Your task to perform on an android device: Search for a new lawnmower on Lowes. Image 0: 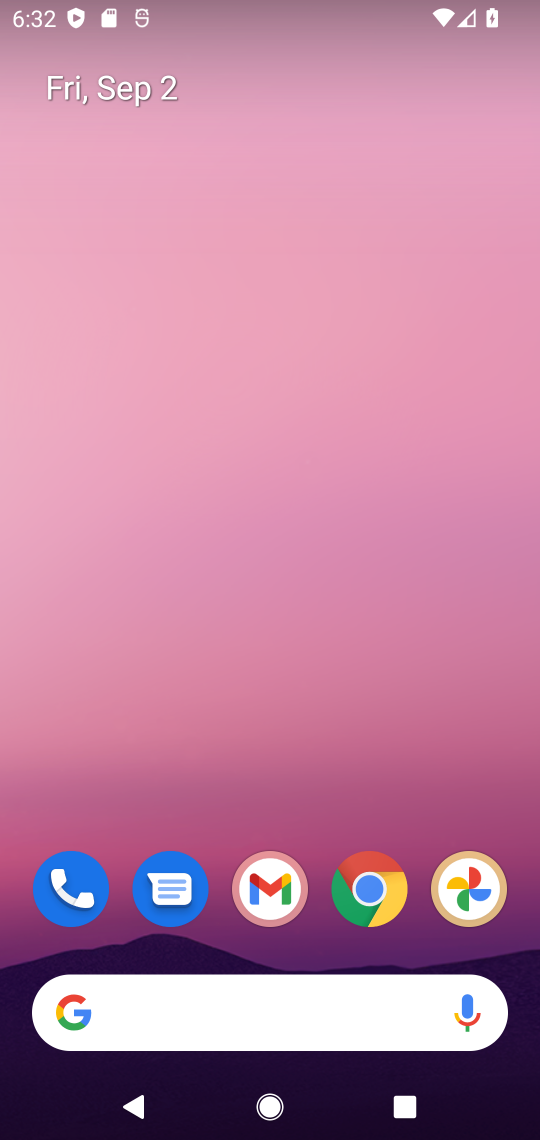
Step 0: click (232, 1023)
Your task to perform on an android device: Search for a new lawnmower on Lowes. Image 1: 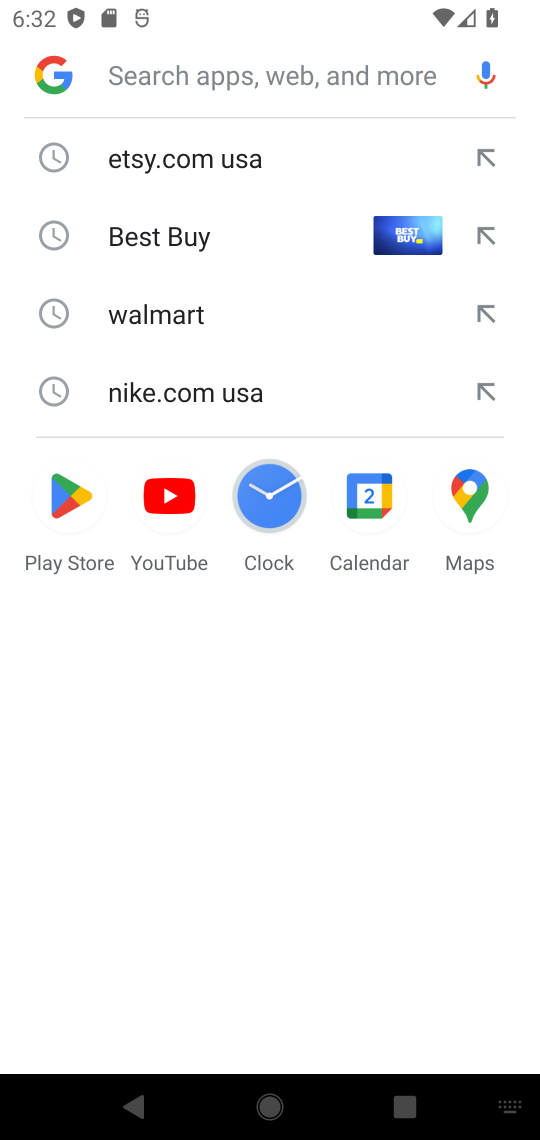
Step 1: click (214, 1076)
Your task to perform on an android device: Search for a new lawnmower on Lowes. Image 2: 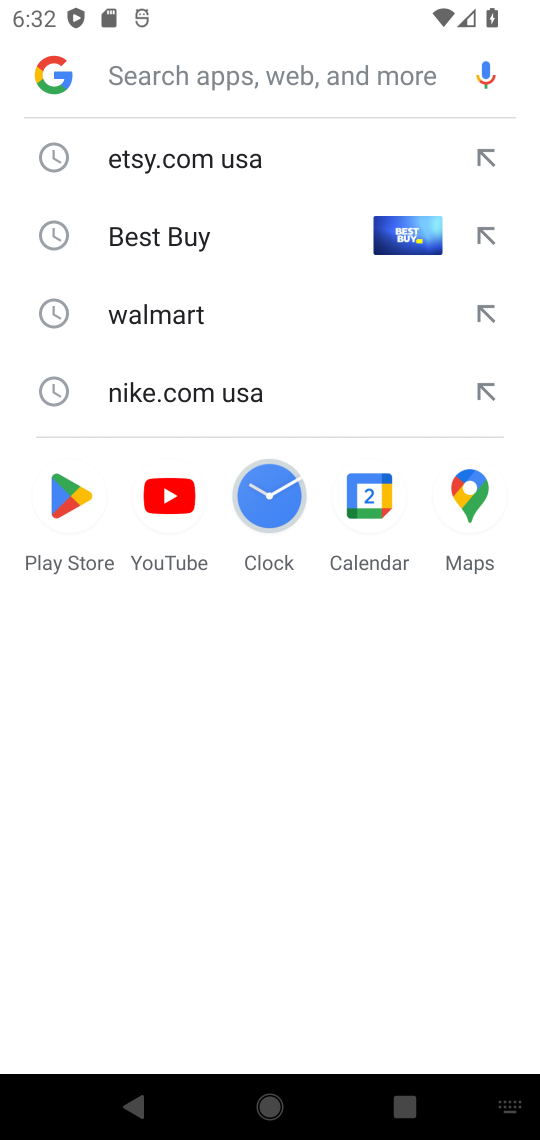
Step 2: type "Lowes"
Your task to perform on an android device: Search for a new lawnmower on Lowes. Image 3: 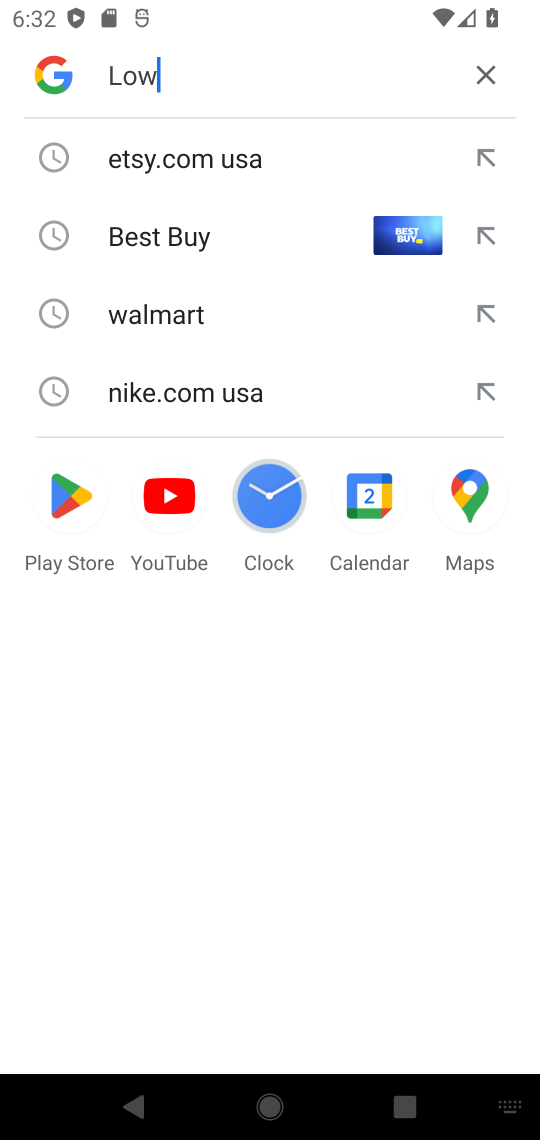
Step 3: type ""
Your task to perform on an android device: Search for a new lawnmower on Lowes. Image 4: 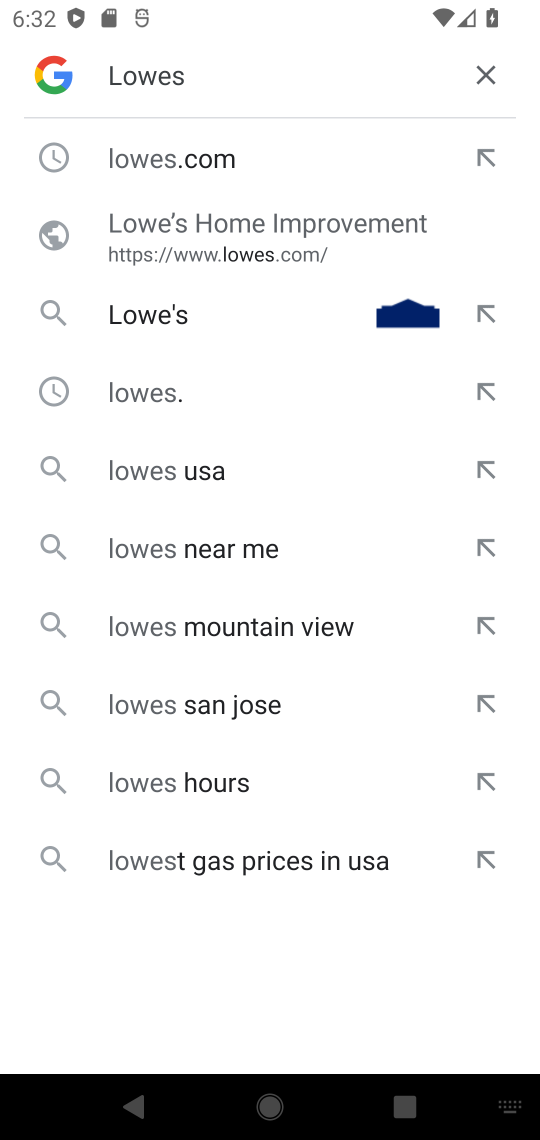
Step 4: click (233, 172)
Your task to perform on an android device: Search for a new lawnmower on Lowes. Image 5: 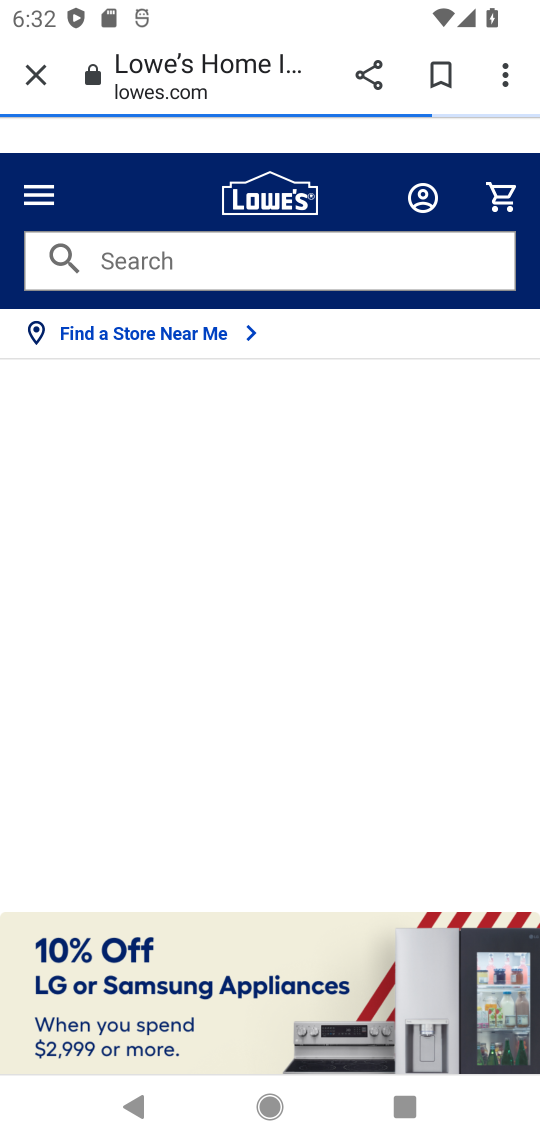
Step 5: click (231, 260)
Your task to perform on an android device: Search for a new lawnmower on Lowes. Image 6: 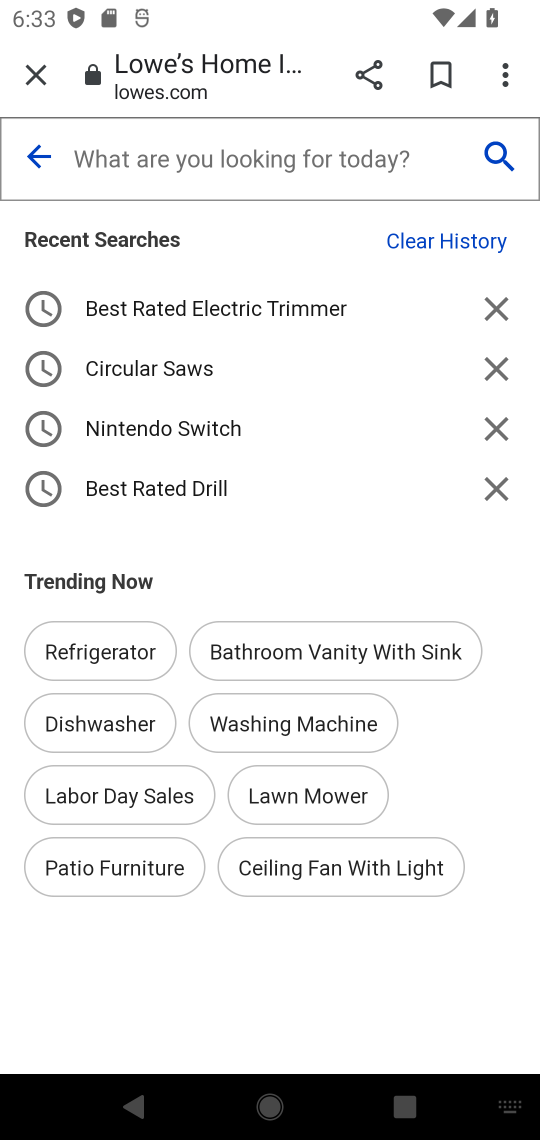
Step 6: type "new lawnmower"
Your task to perform on an android device: Search for a new lawnmower on Lowes. Image 7: 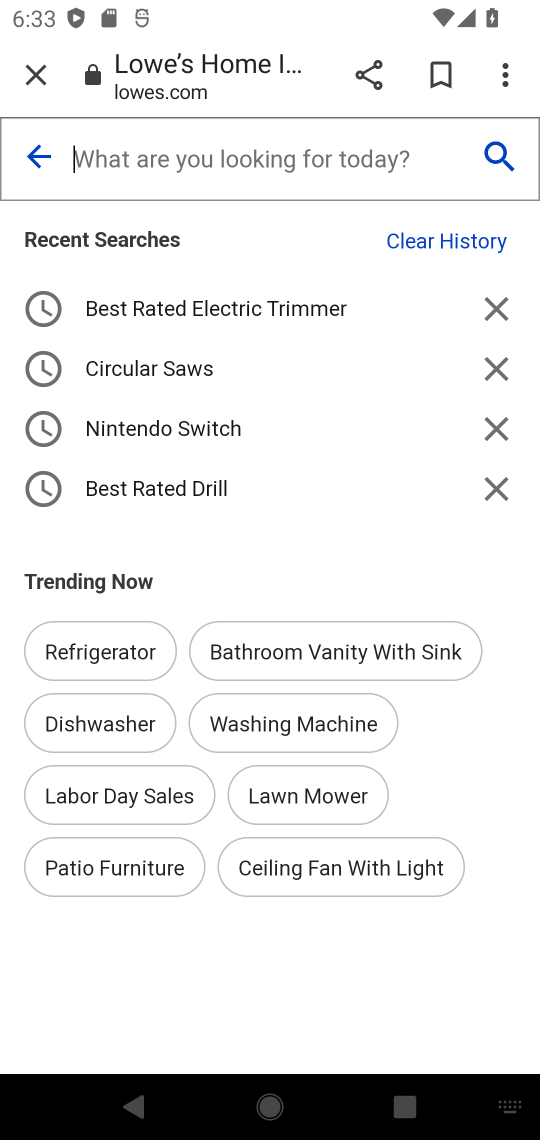
Step 7: type ""
Your task to perform on an android device: Search for a new lawnmower on Lowes. Image 8: 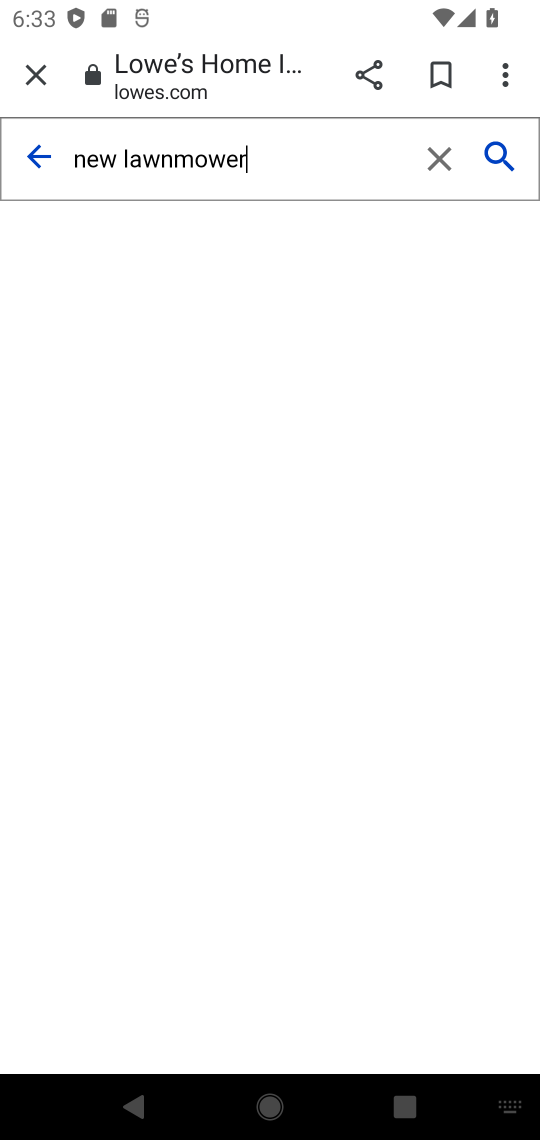
Step 8: click (510, 156)
Your task to perform on an android device: Search for a new lawnmower on Lowes. Image 9: 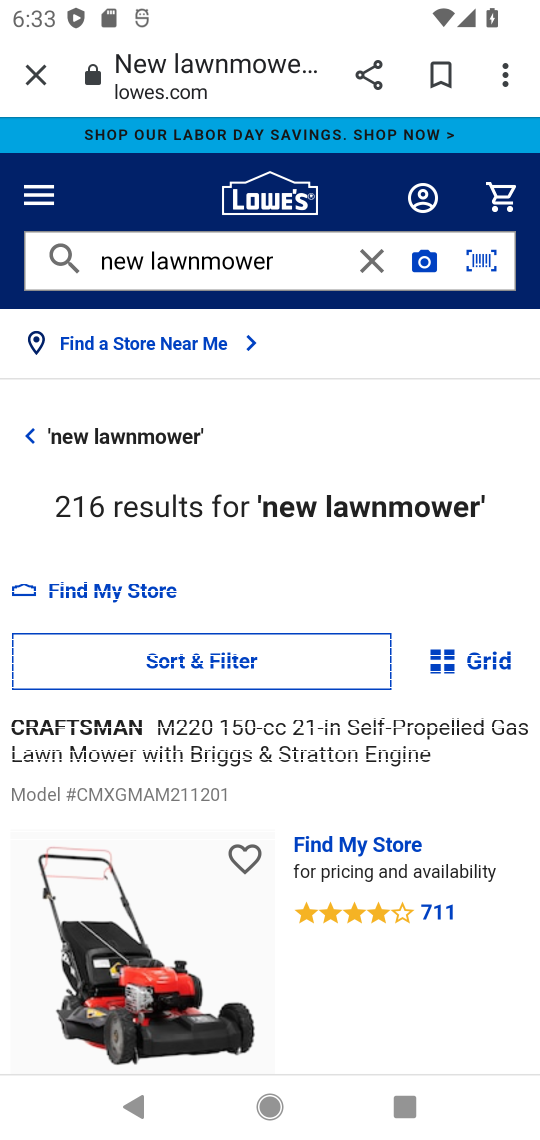
Step 9: task complete